Your task to perform on an android device: set the stopwatch Image 0: 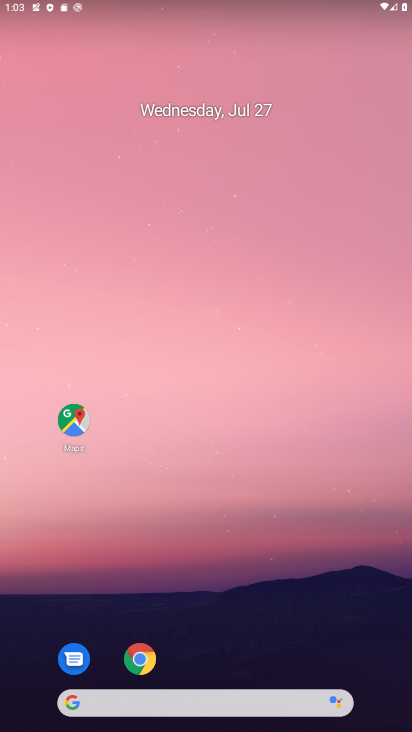
Step 0: drag from (253, 606) to (231, 142)
Your task to perform on an android device: set the stopwatch Image 1: 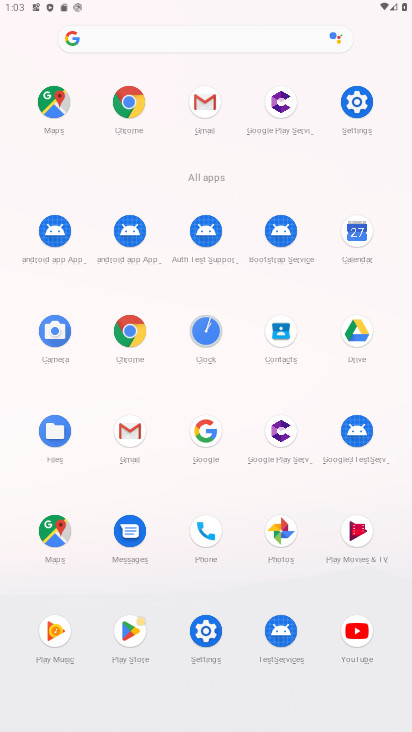
Step 1: click (221, 324)
Your task to perform on an android device: set the stopwatch Image 2: 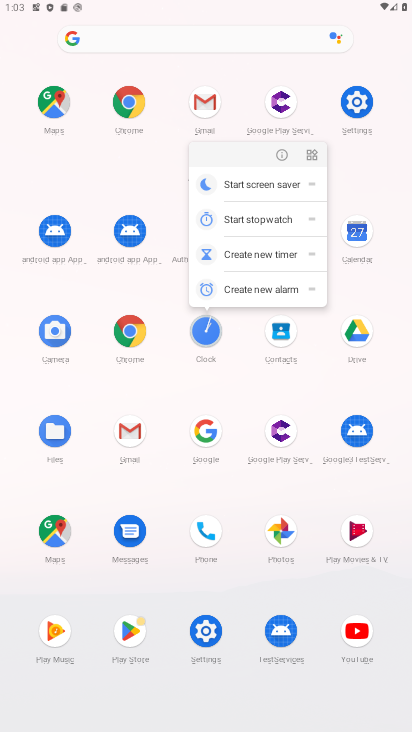
Step 2: click (193, 339)
Your task to perform on an android device: set the stopwatch Image 3: 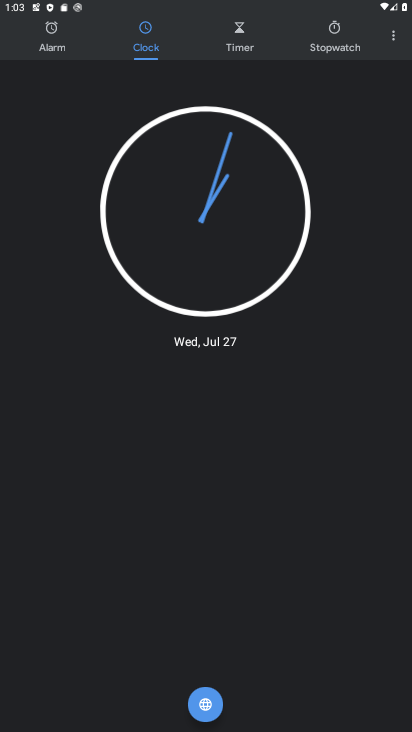
Step 3: click (355, 29)
Your task to perform on an android device: set the stopwatch Image 4: 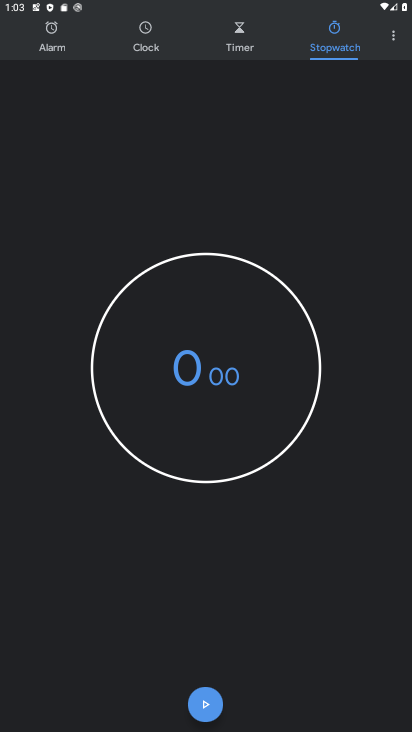
Step 4: click (221, 705)
Your task to perform on an android device: set the stopwatch Image 5: 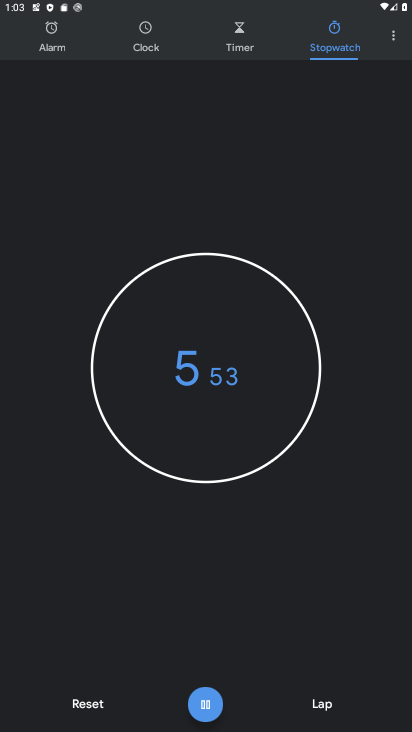
Step 5: task complete